Your task to perform on an android device: toggle javascript in the chrome app Image 0: 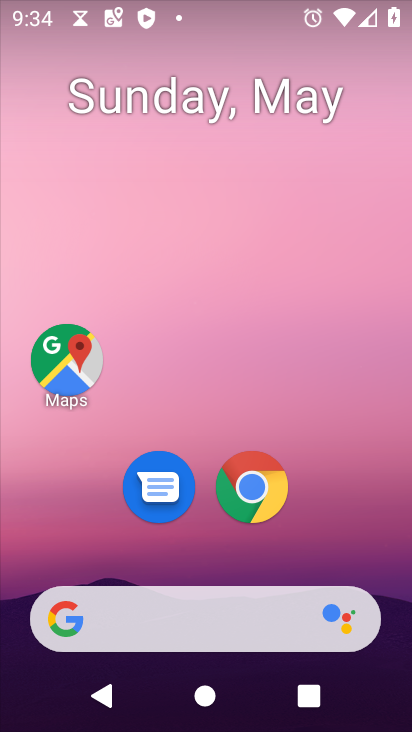
Step 0: click (276, 509)
Your task to perform on an android device: toggle javascript in the chrome app Image 1: 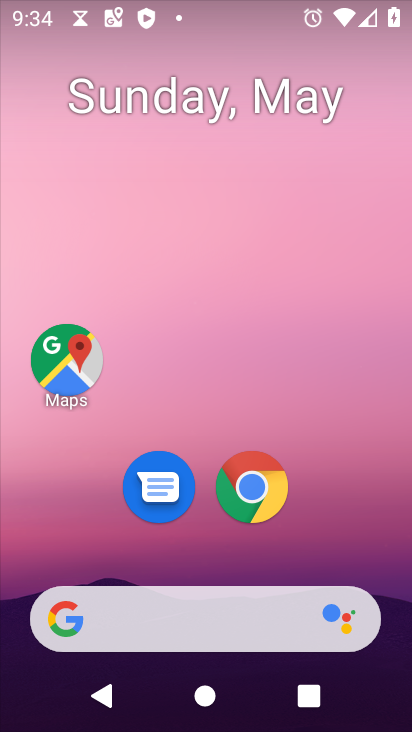
Step 1: click (266, 484)
Your task to perform on an android device: toggle javascript in the chrome app Image 2: 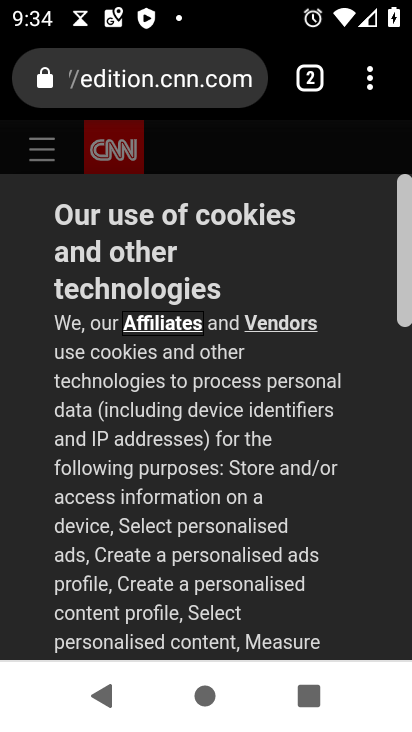
Step 2: drag from (369, 82) to (179, 561)
Your task to perform on an android device: toggle javascript in the chrome app Image 3: 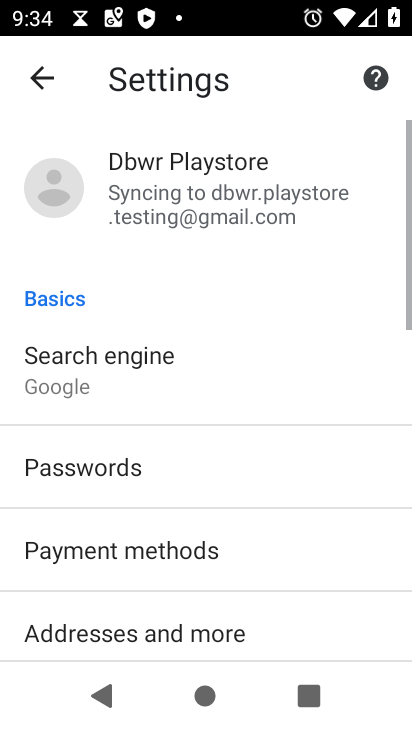
Step 3: drag from (178, 609) to (204, 355)
Your task to perform on an android device: toggle javascript in the chrome app Image 4: 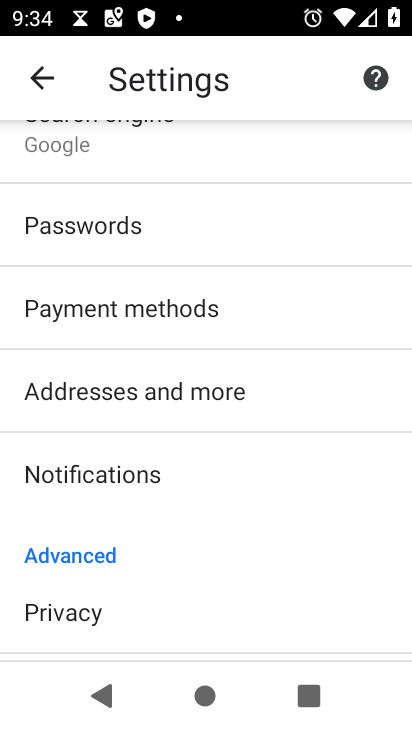
Step 4: drag from (199, 570) to (180, 290)
Your task to perform on an android device: toggle javascript in the chrome app Image 5: 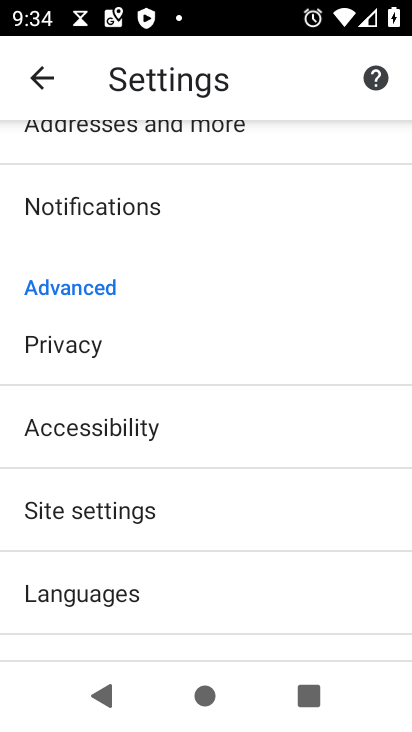
Step 5: click (156, 537)
Your task to perform on an android device: toggle javascript in the chrome app Image 6: 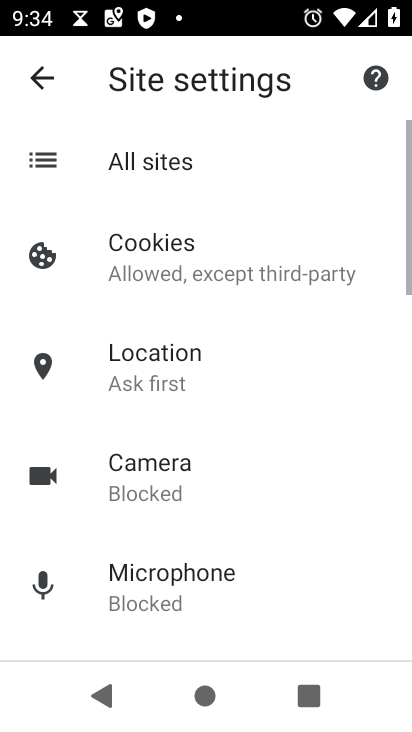
Step 6: drag from (162, 504) to (182, 15)
Your task to perform on an android device: toggle javascript in the chrome app Image 7: 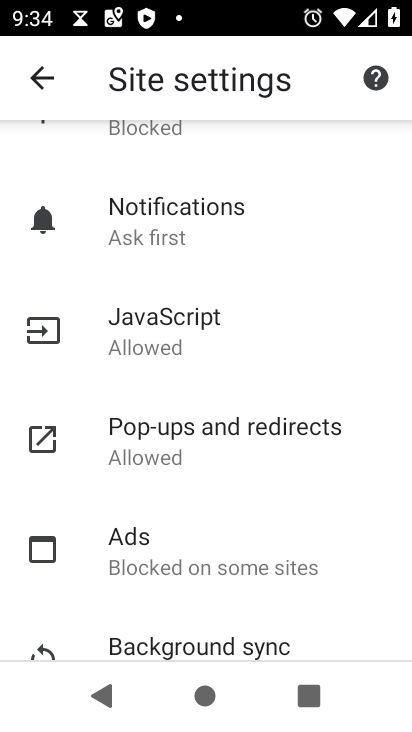
Step 7: drag from (217, 617) to (322, 178)
Your task to perform on an android device: toggle javascript in the chrome app Image 8: 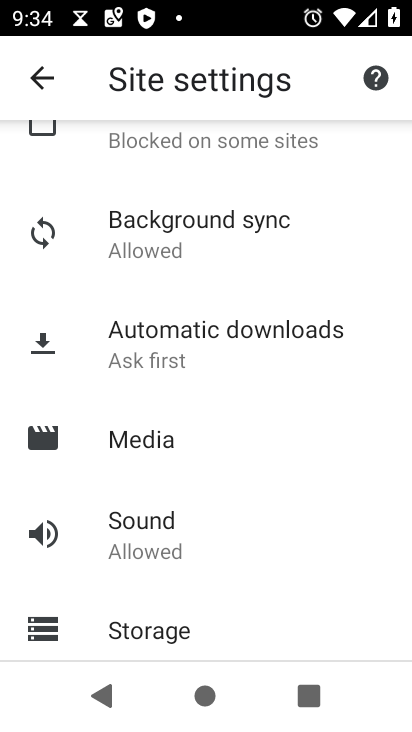
Step 8: drag from (267, 296) to (288, 722)
Your task to perform on an android device: toggle javascript in the chrome app Image 9: 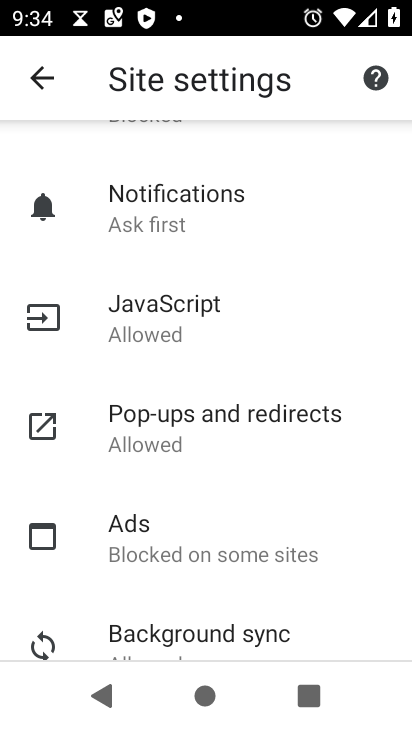
Step 9: click (178, 304)
Your task to perform on an android device: toggle javascript in the chrome app Image 10: 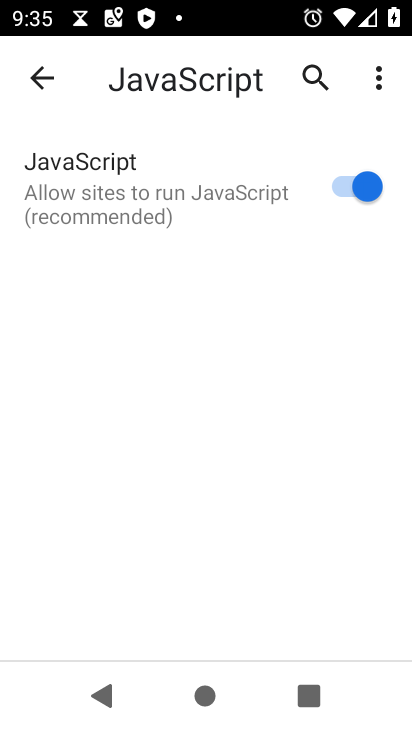
Step 10: click (329, 166)
Your task to perform on an android device: toggle javascript in the chrome app Image 11: 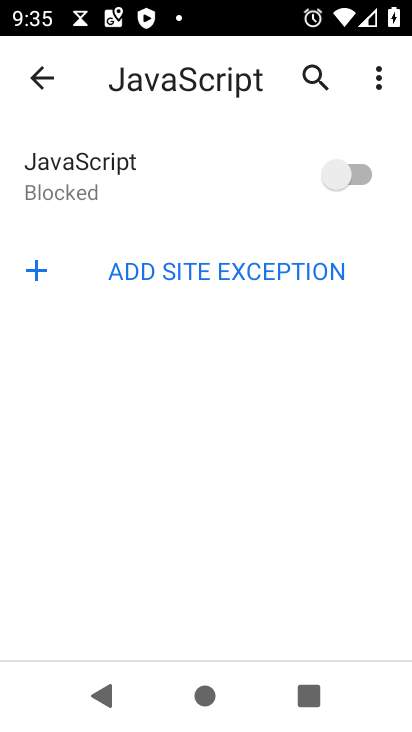
Step 11: task complete